Your task to perform on an android device: find snoozed emails in the gmail app Image 0: 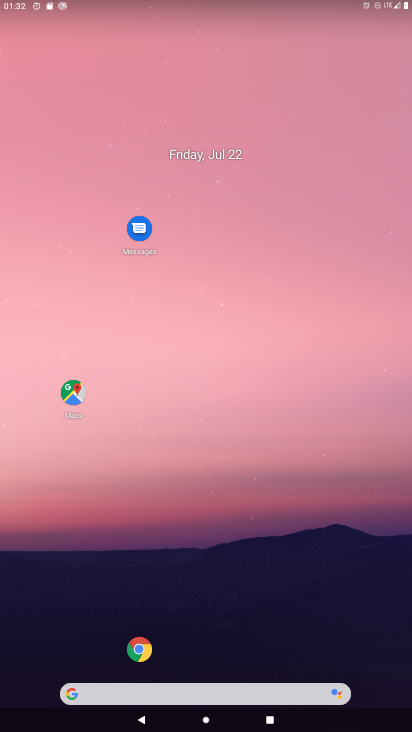
Step 0: drag from (18, 690) to (254, 62)
Your task to perform on an android device: find snoozed emails in the gmail app Image 1: 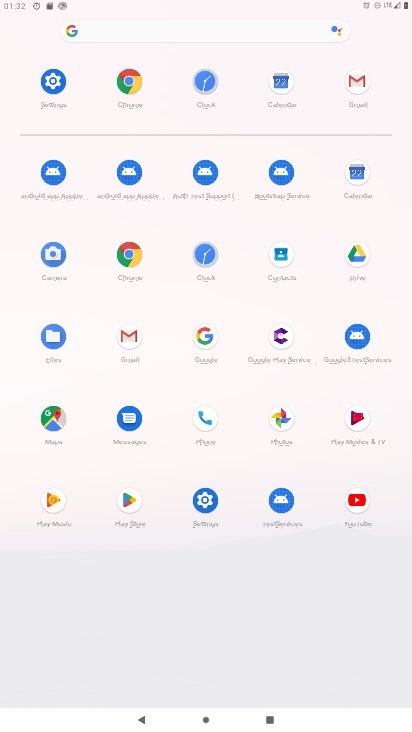
Step 1: click (127, 337)
Your task to perform on an android device: find snoozed emails in the gmail app Image 2: 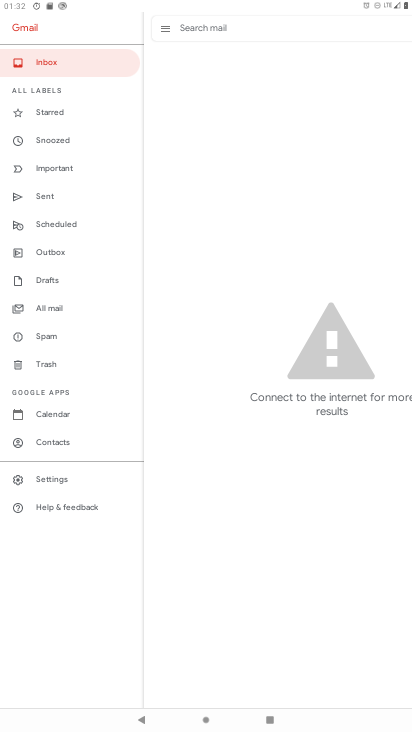
Step 2: click (48, 137)
Your task to perform on an android device: find snoozed emails in the gmail app Image 3: 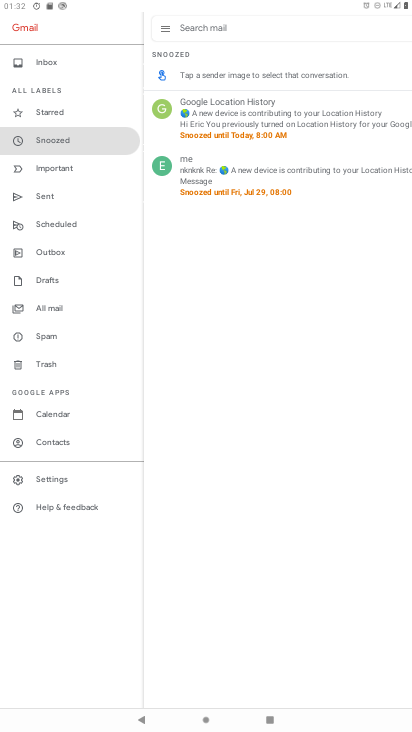
Step 3: task complete